Your task to perform on an android device: Search for Italian restaurants on Maps Image 0: 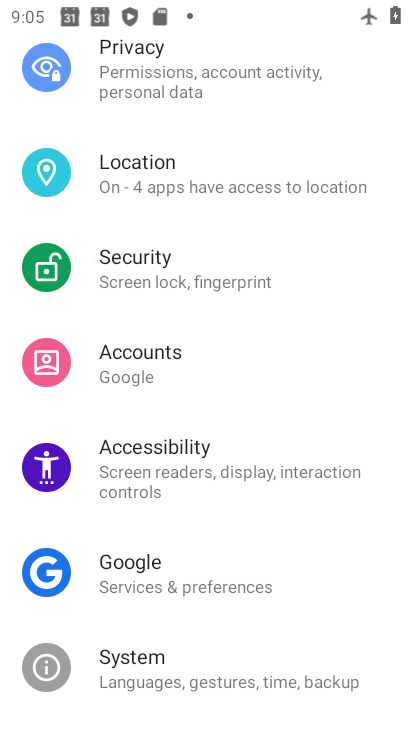
Step 0: press home button
Your task to perform on an android device: Search for Italian restaurants on Maps Image 1: 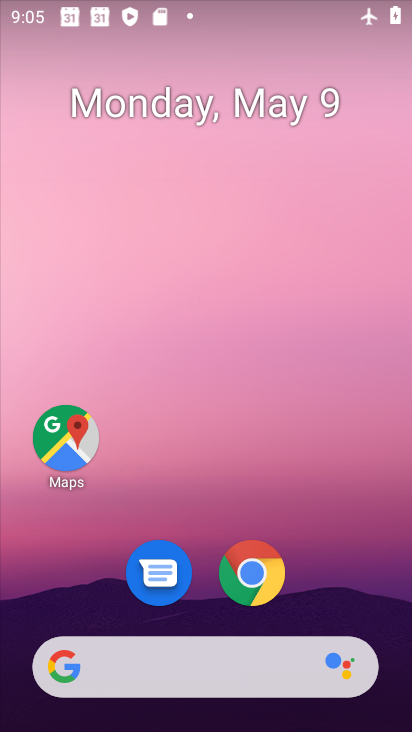
Step 1: click (81, 436)
Your task to perform on an android device: Search for Italian restaurants on Maps Image 2: 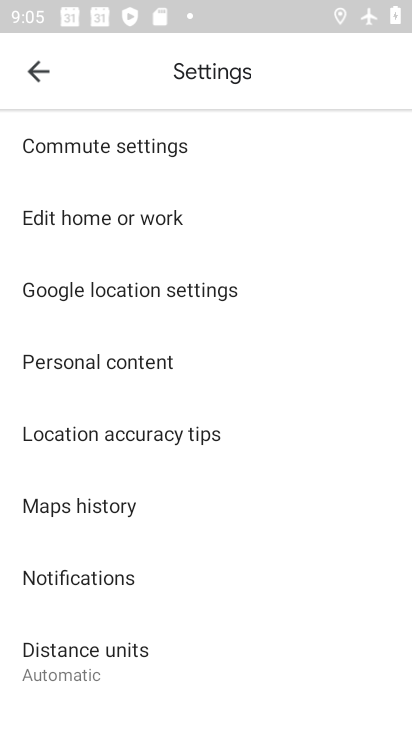
Step 2: click (31, 80)
Your task to perform on an android device: Search for Italian restaurants on Maps Image 3: 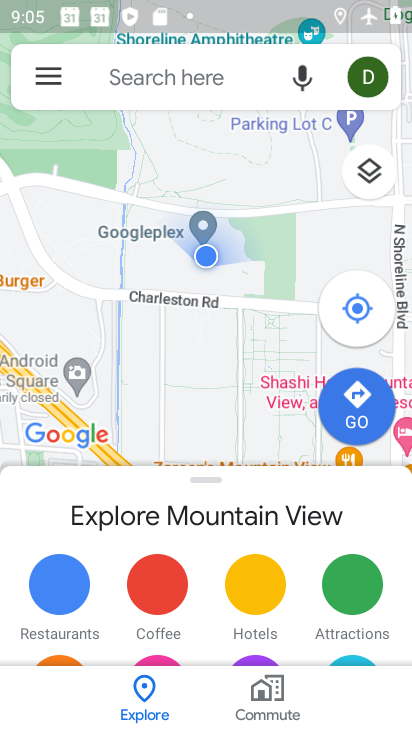
Step 3: click (166, 78)
Your task to perform on an android device: Search for Italian restaurants on Maps Image 4: 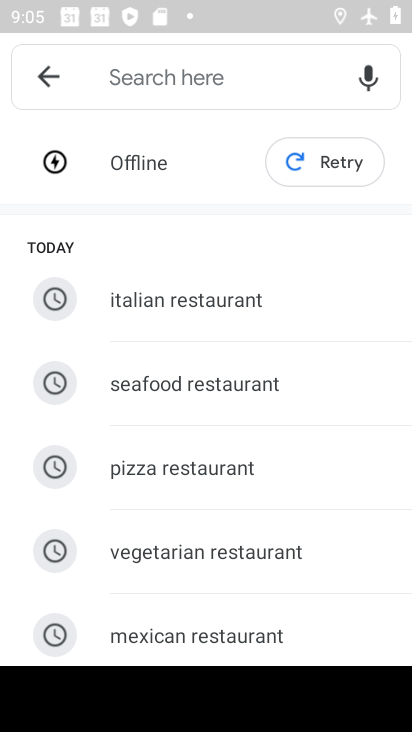
Step 4: type "italian restaurants"
Your task to perform on an android device: Search for Italian restaurants on Maps Image 5: 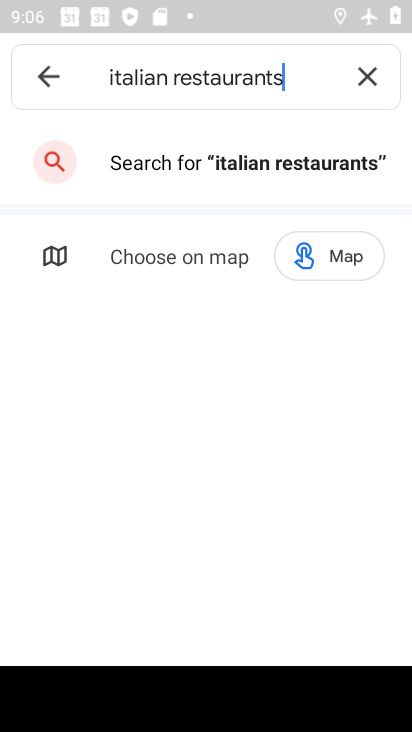
Step 5: click (248, 162)
Your task to perform on an android device: Search for Italian restaurants on Maps Image 6: 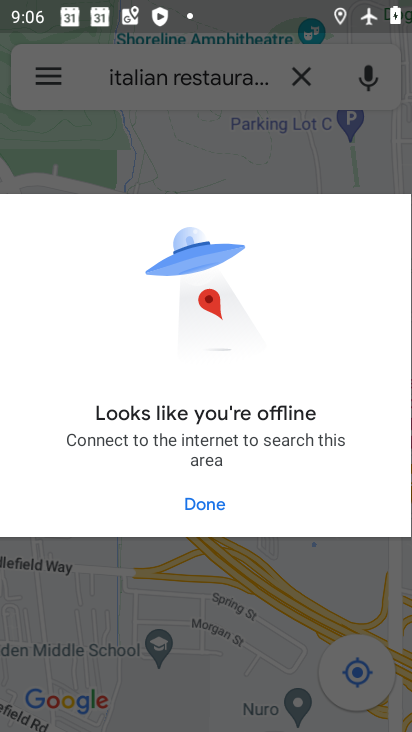
Step 6: task complete